Your task to perform on an android device: change the clock style Image 0: 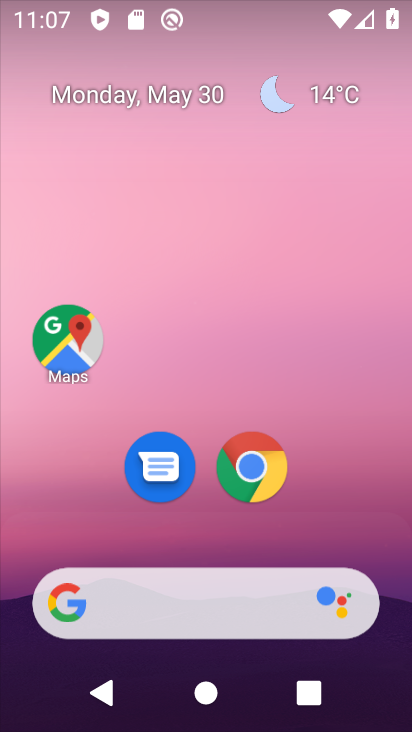
Step 0: drag from (246, 287) to (277, 84)
Your task to perform on an android device: change the clock style Image 1: 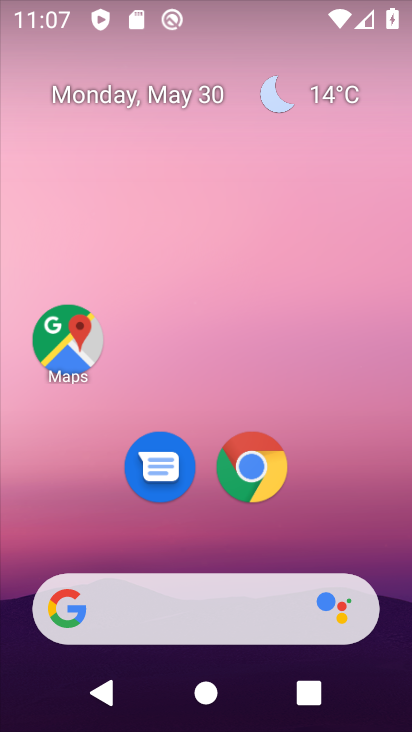
Step 1: drag from (207, 573) to (234, 87)
Your task to perform on an android device: change the clock style Image 2: 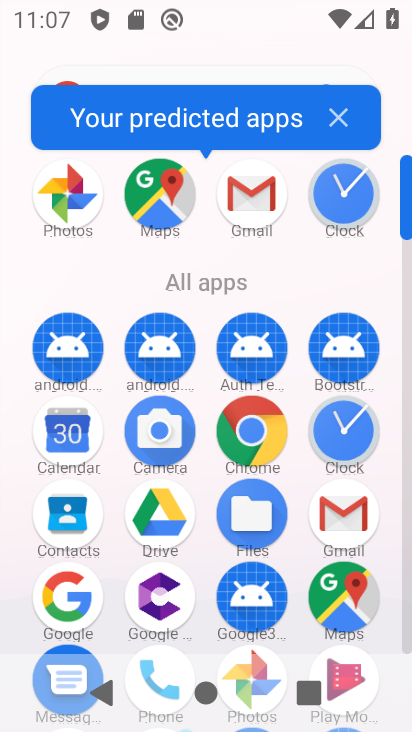
Step 2: click (339, 444)
Your task to perform on an android device: change the clock style Image 3: 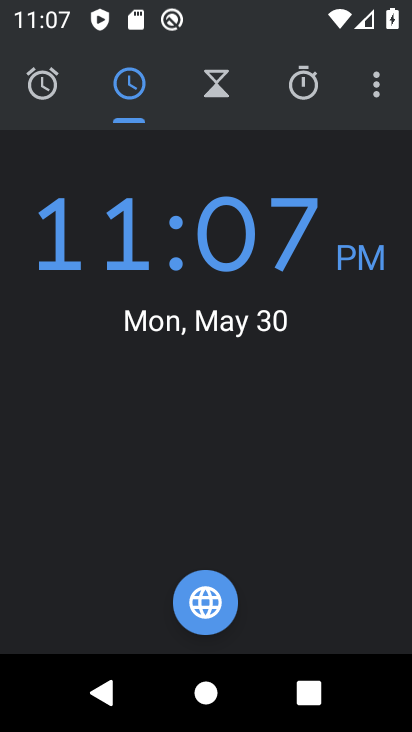
Step 3: click (380, 89)
Your task to perform on an android device: change the clock style Image 4: 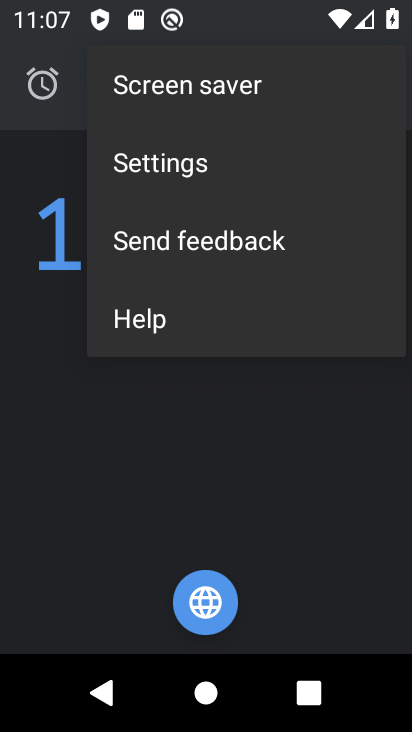
Step 4: click (180, 164)
Your task to perform on an android device: change the clock style Image 5: 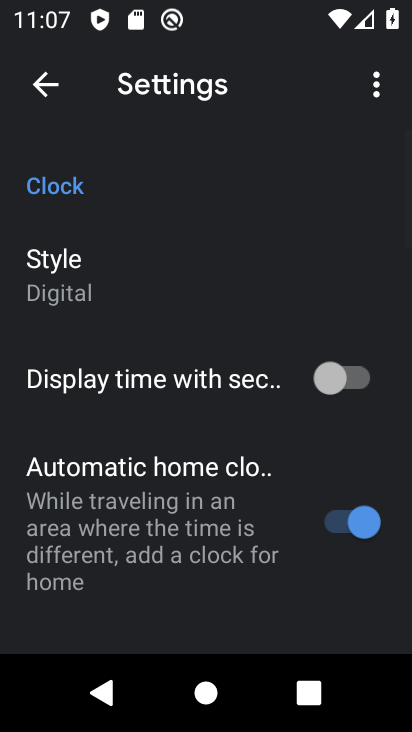
Step 5: click (47, 279)
Your task to perform on an android device: change the clock style Image 6: 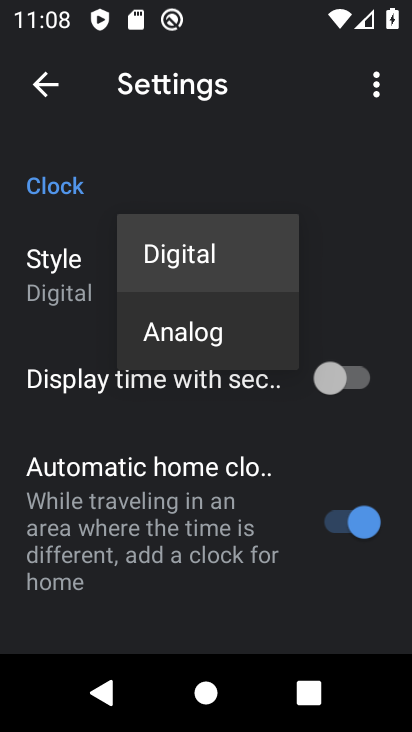
Step 6: click (156, 345)
Your task to perform on an android device: change the clock style Image 7: 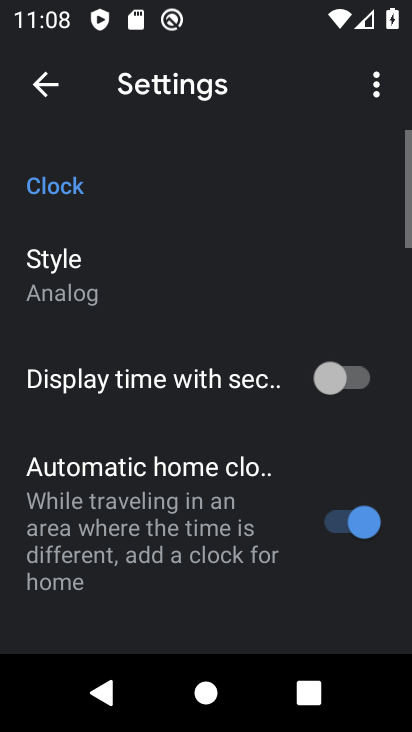
Step 7: task complete